Your task to perform on an android device: open sync settings in chrome Image 0: 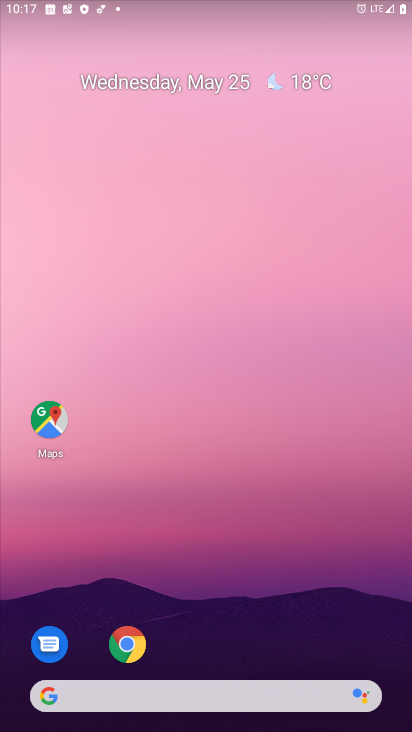
Step 0: press home button
Your task to perform on an android device: open sync settings in chrome Image 1: 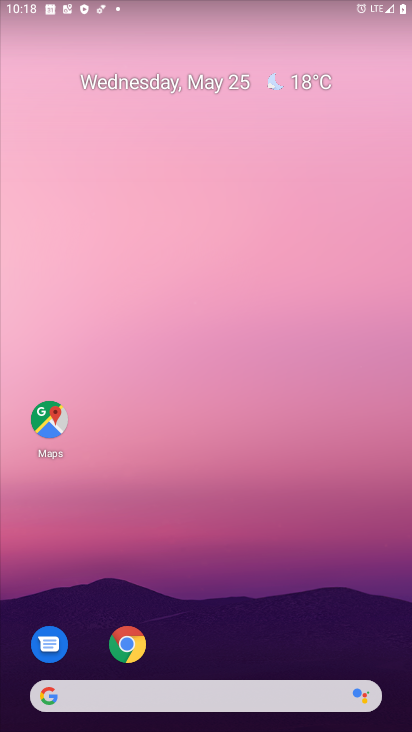
Step 1: click (127, 640)
Your task to perform on an android device: open sync settings in chrome Image 2: 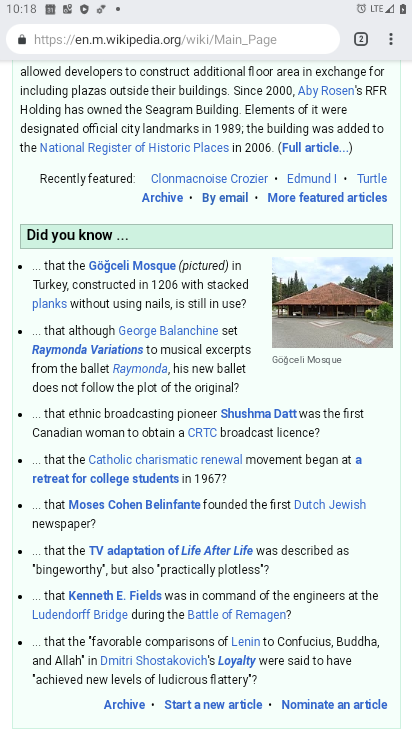
Step 2: click (389, 38)
Your task to perform on an android device: open sync settings in chrome Image 3: 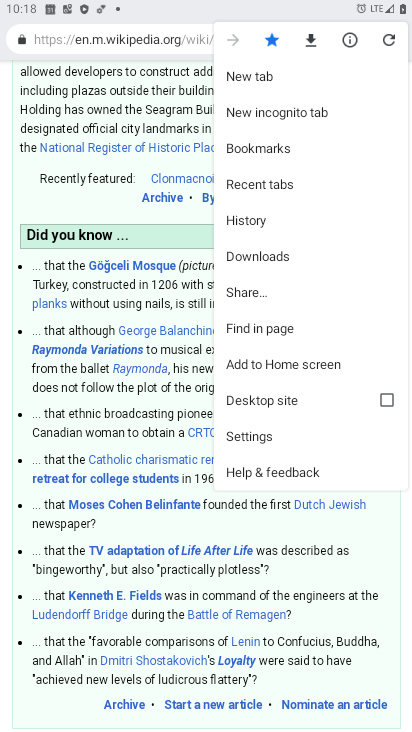
Step 3: click (276, 433)
Your task to perform on an android device: open sync settings in chrome Image 4: 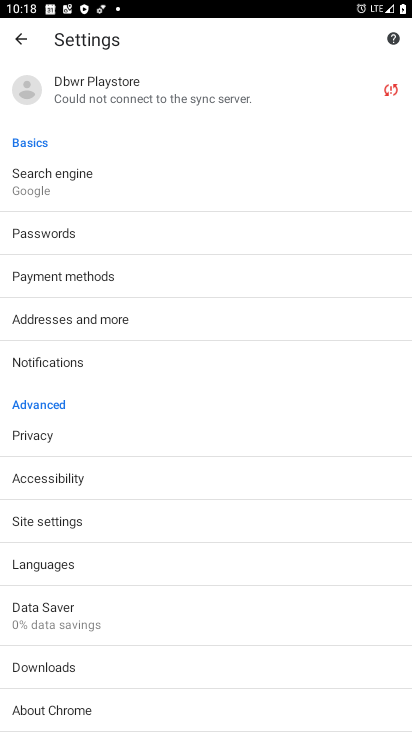
Step 4: click (170, 92)
Your task to perform on an android device: open sync settings in chrome Image 5: 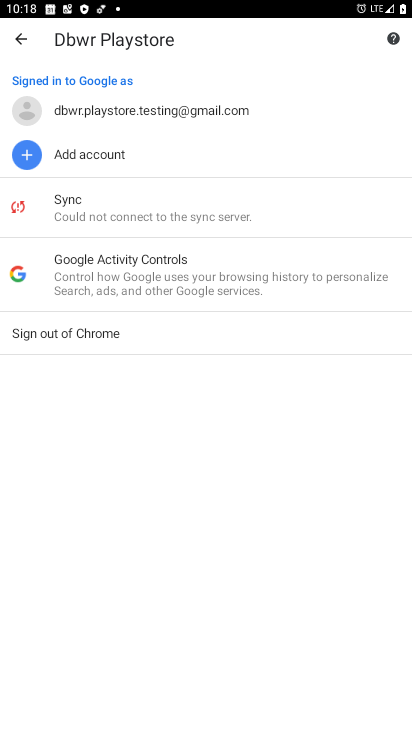
Step 5: click (120, 202)
Your task to perform on an android device: open sync settings in chrome Image 6: 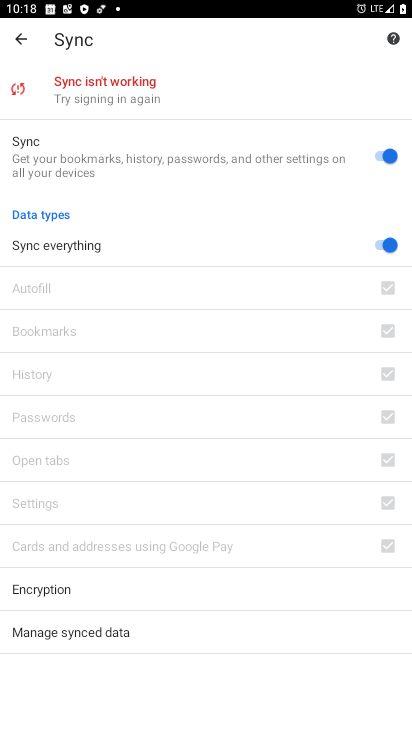
Step 6: task complete